Your task to perform on an android device: open app "eBay: The shopping marketplace" (install if not already installed) and go to login screen Image 0: 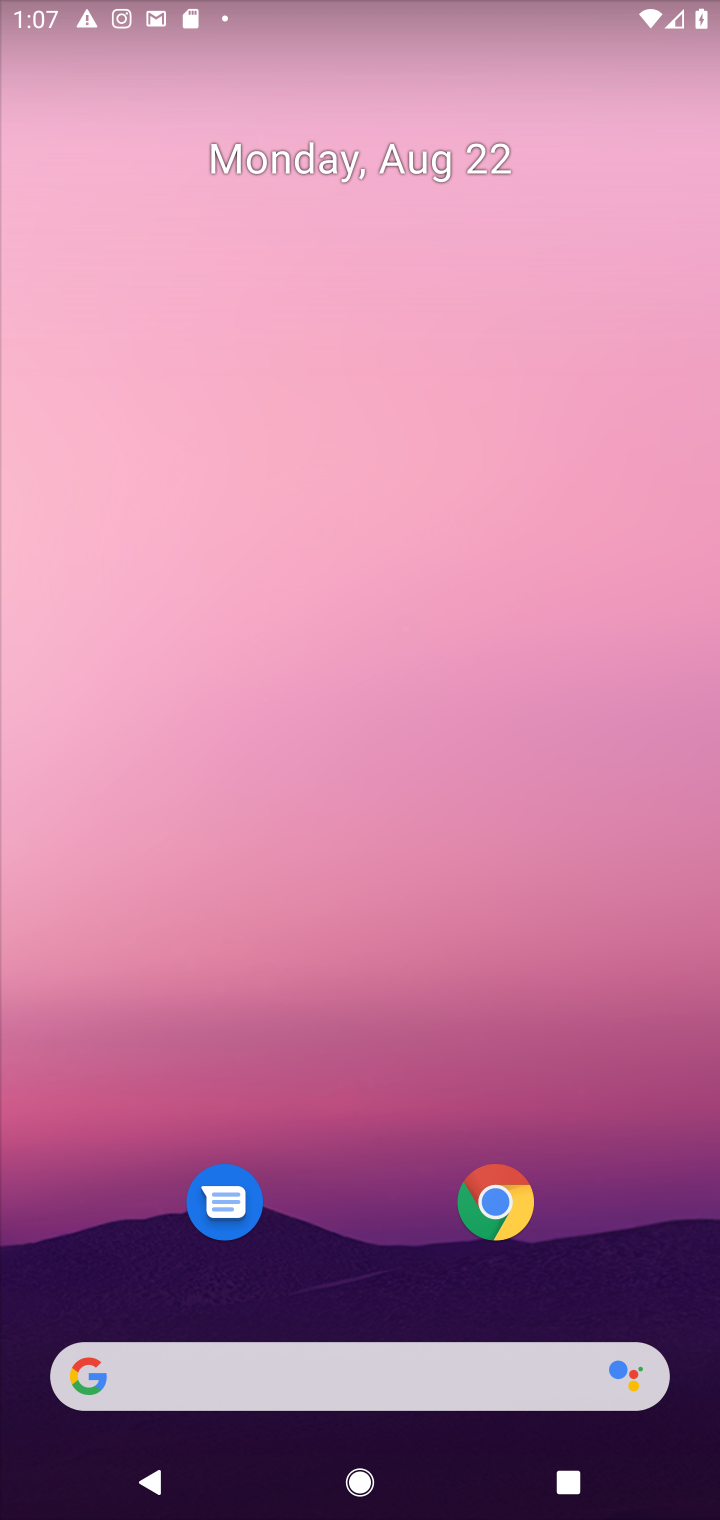
Step 0: drag from (333, 809) to (378, 115)
Your task to perform on an android device: open app "eBay: The shopping marketplace" (install if not already installed) and go to login screen Image 1: 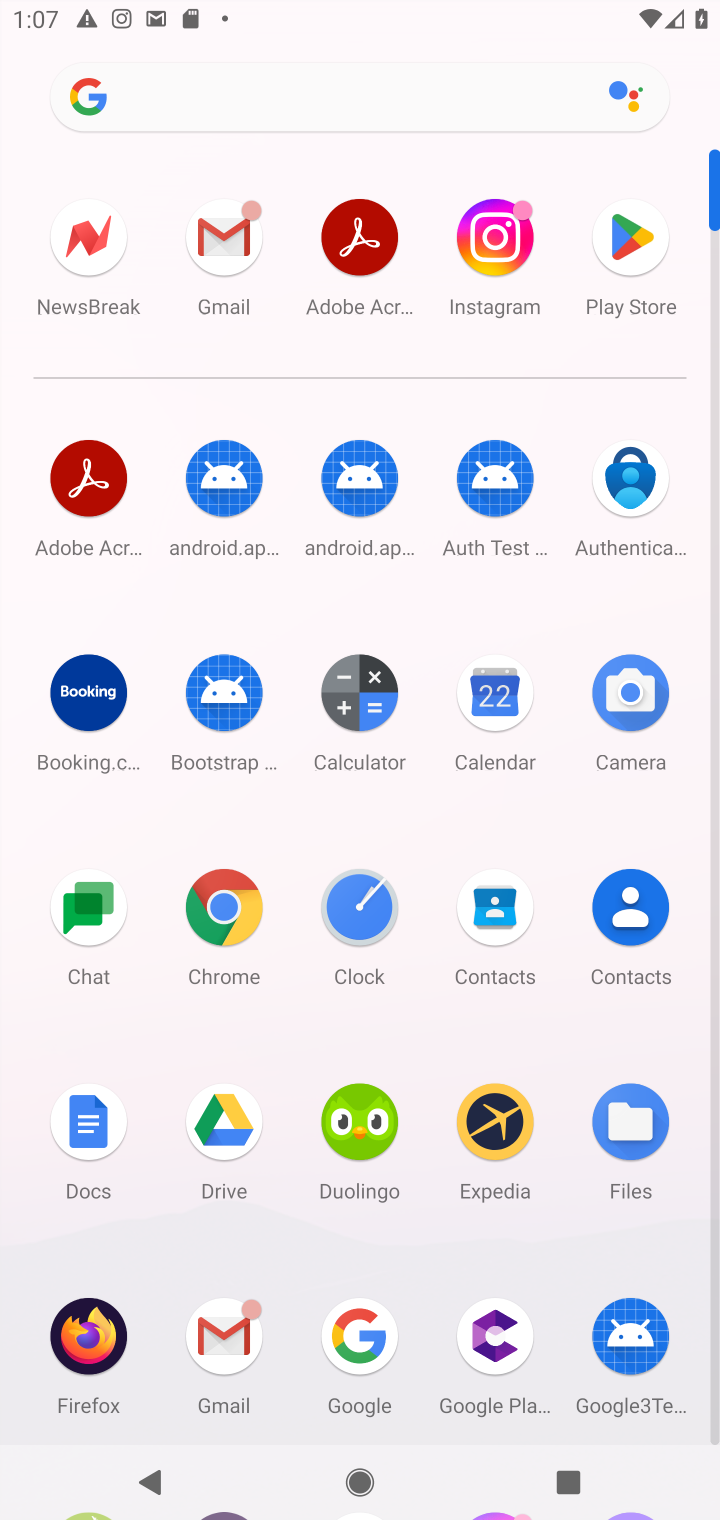
Step 1: click (632, 235)
Your task to perform on an android device: open app "eBay: The shopping marketplace" (install if not already installed) and go to login screen Image 2: 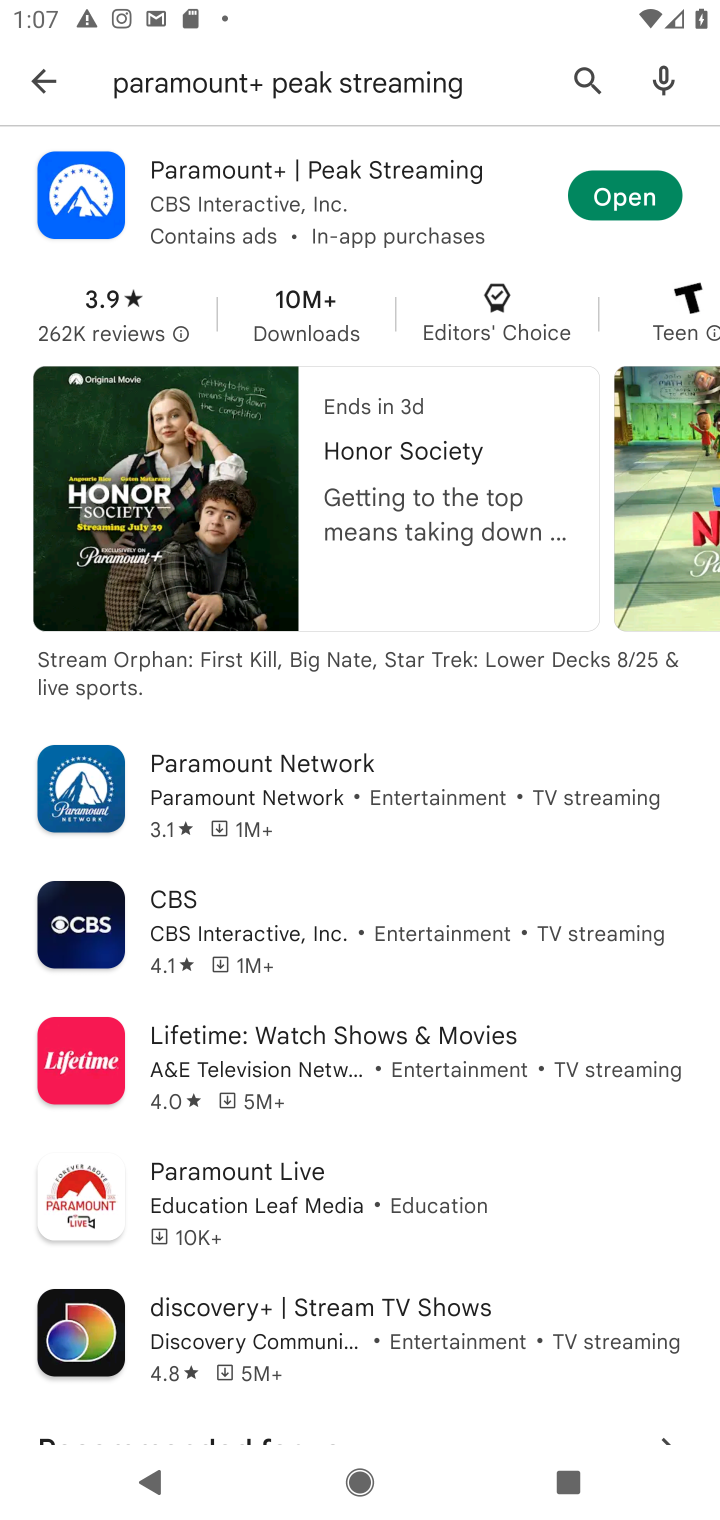
Step 2: click (577, 80)
Your task to perform on an android device: open app "eBay: The shopping marketplace" (install if not already installed) and go to login screen Image 3: 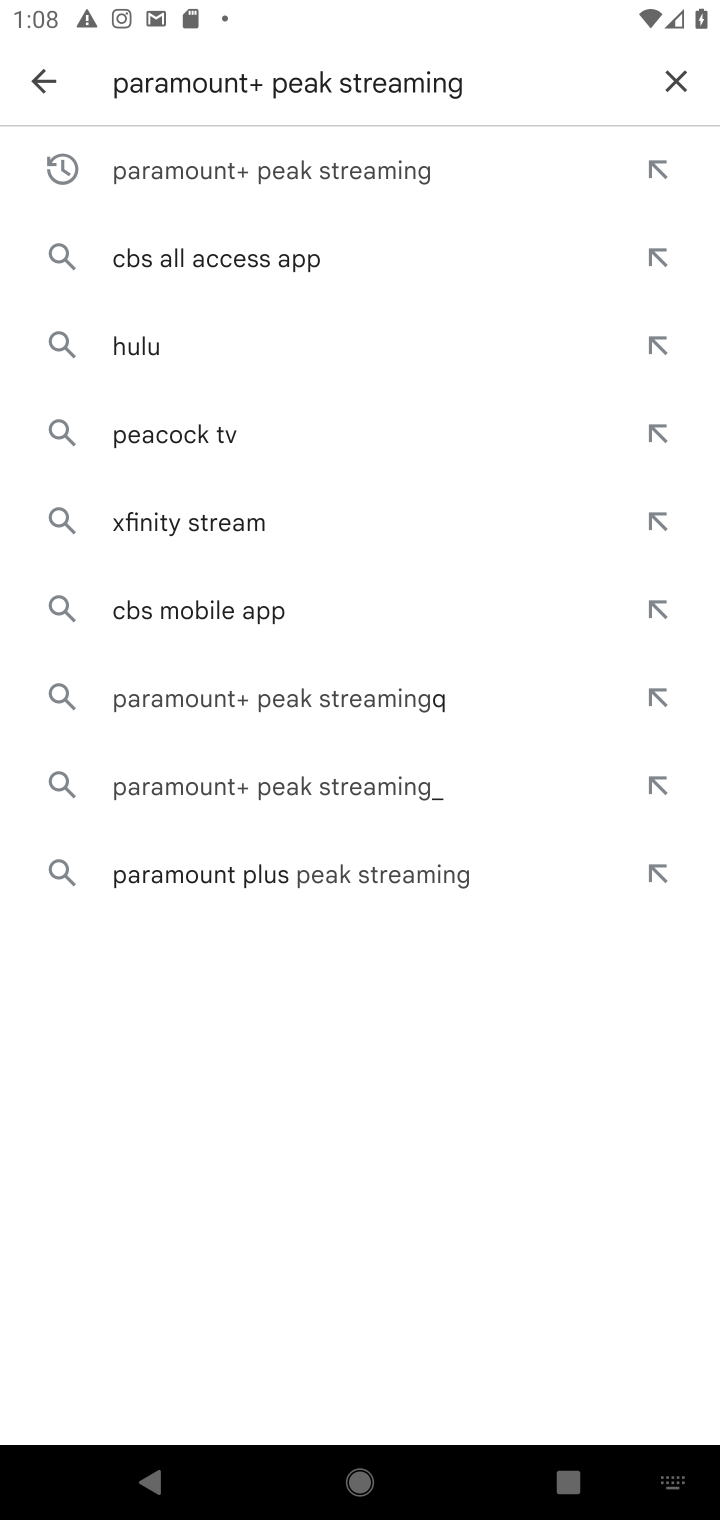
Step 3: click (682, 78)
Your task to perform on an android device: open app "eBay: The shopping marketplace" (install if not already installed) and go to login screen Image 4: 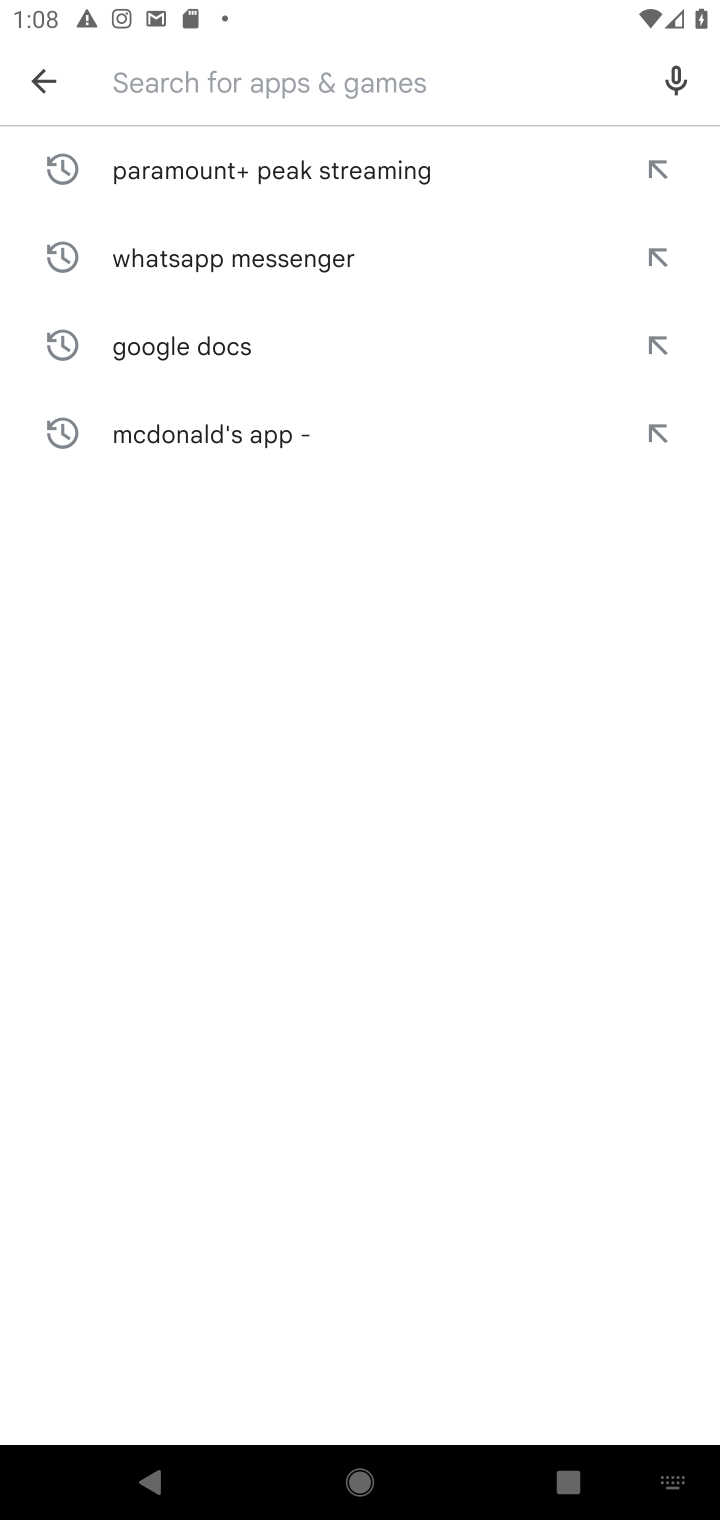
Step 4: type "eBay: The shopping marketplace"
Your task to perform on an android device: open app "eBay: The shopping marketplace" (install if not already installed) and go to login screen Image 5: 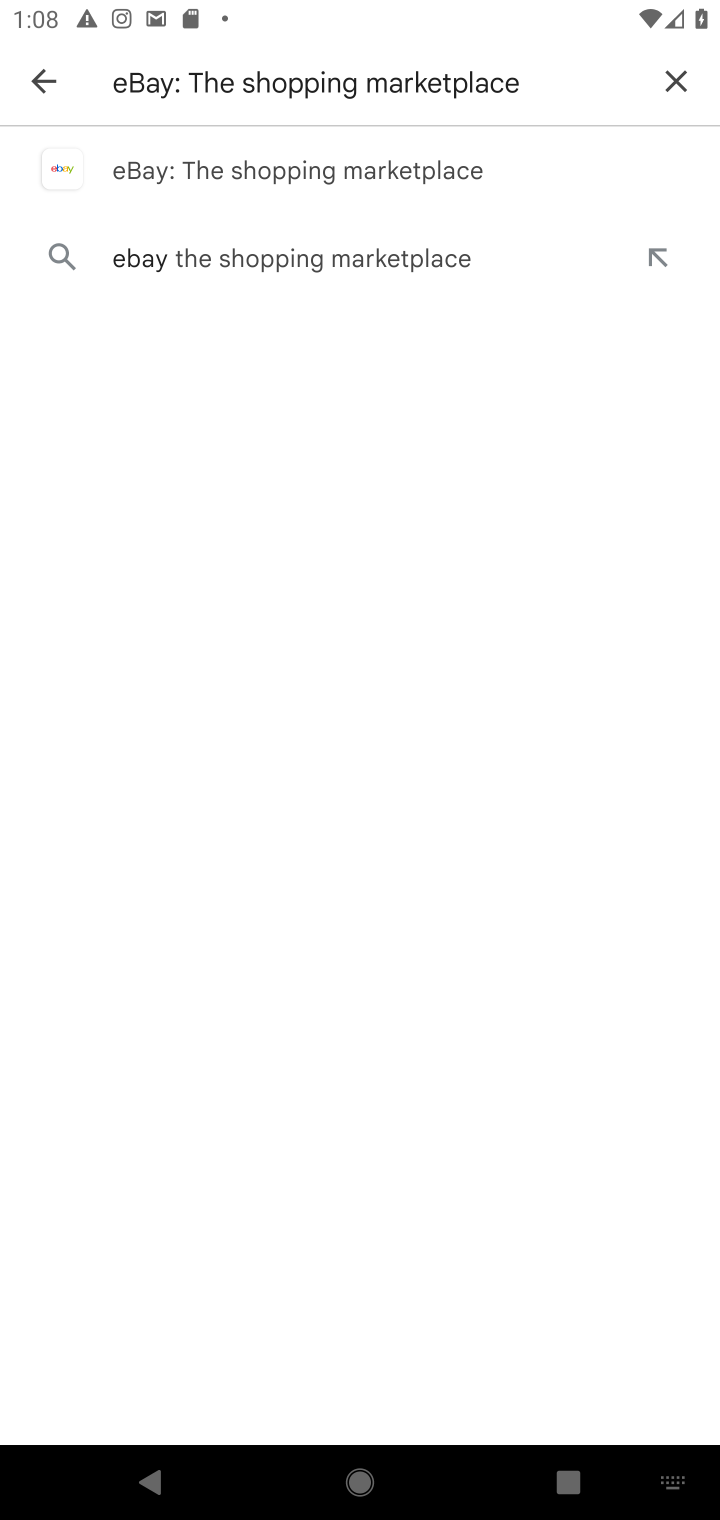
Step 5: click (303, 168)
Your task to perform on an android device: open app "eBay: The shopping marketplace" (install if not already installed) and go to login screen Image 6: 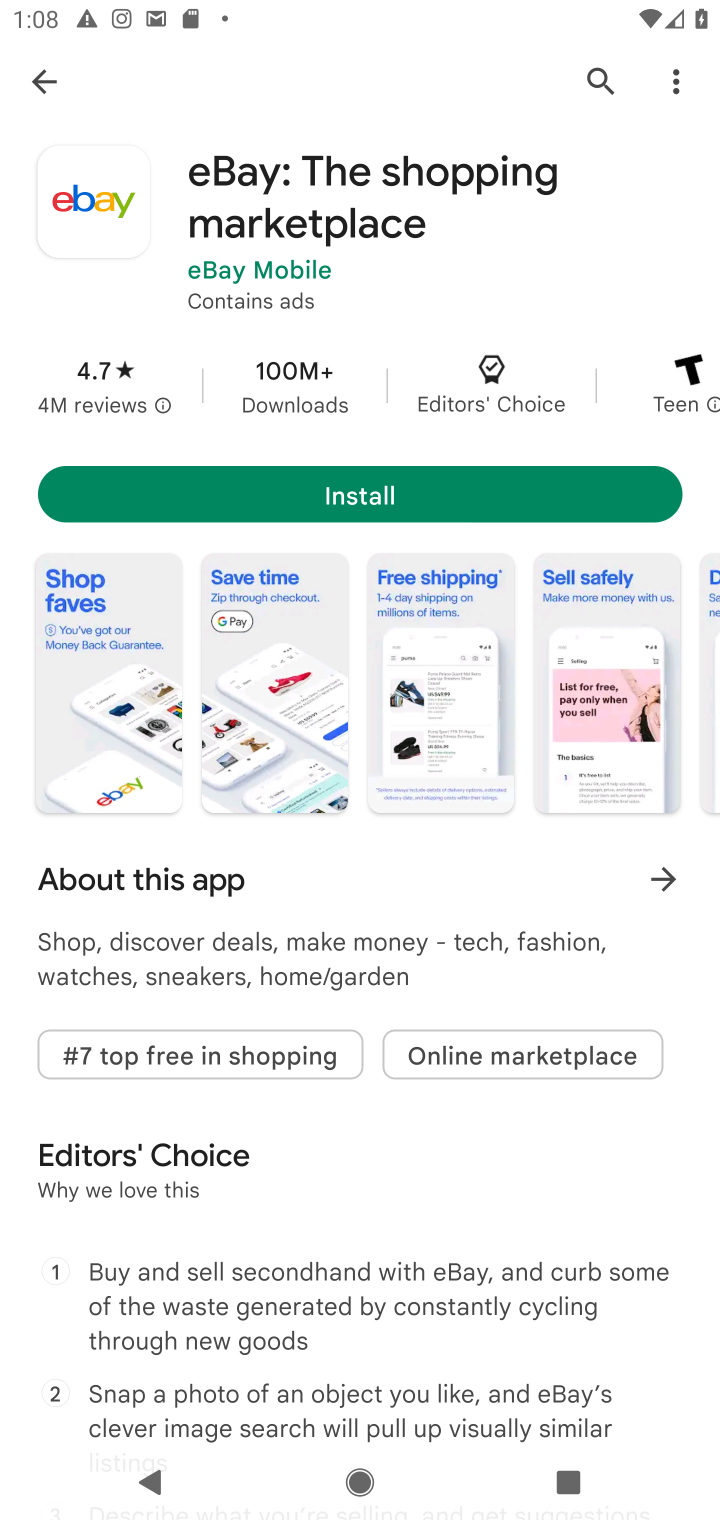
Step 6: click (371, 501)
Your task to perform on an android device: open app "eBay: The shopping marketplace" (install if not already installed) and go to login screen Image 7: 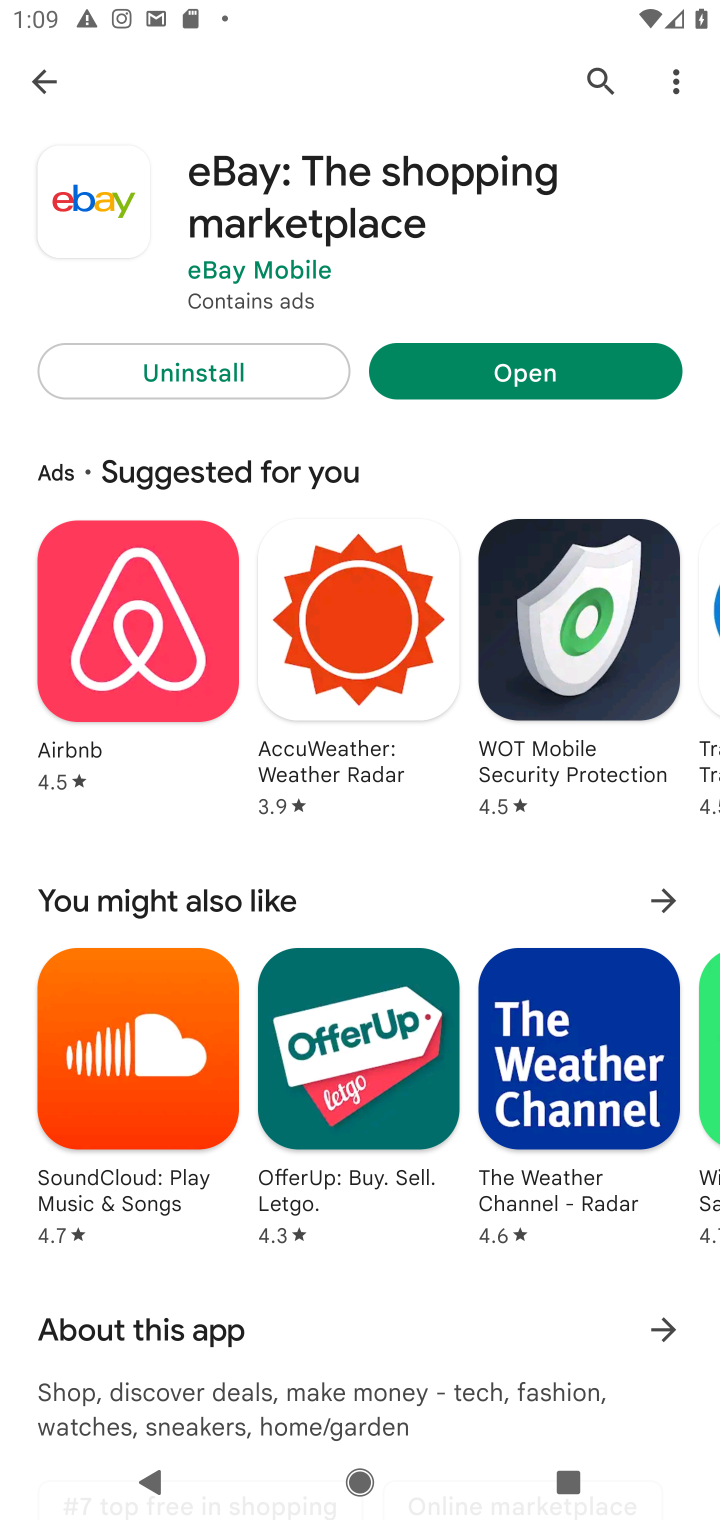
Step 7: click (555, 377)
Your task to perform on an android device: open app "eBay: The shopping marketplace" (install if not already installed) and go to login screen Image 8: 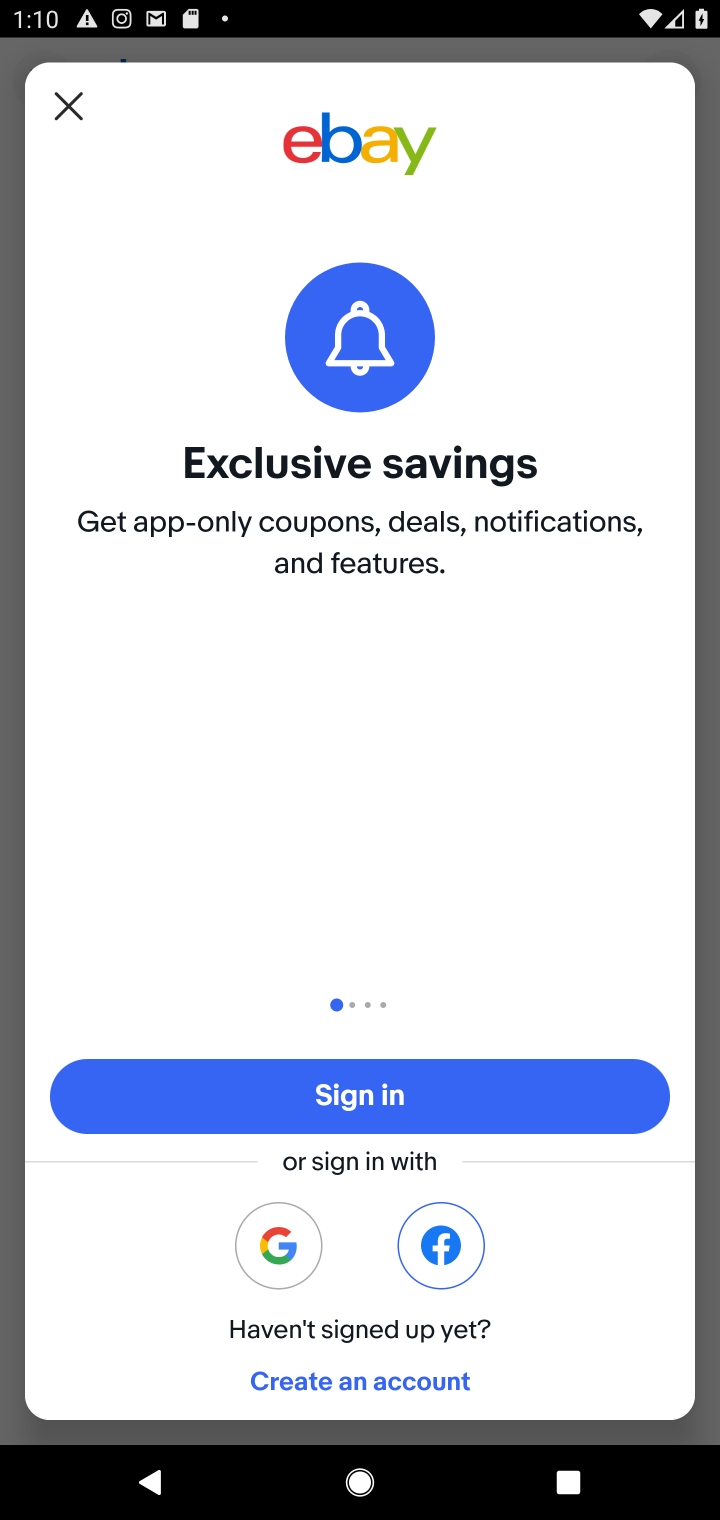
Step 8: task complete